Your task to perform on an android device: Search for pizza restaurants on Maps Image 0: 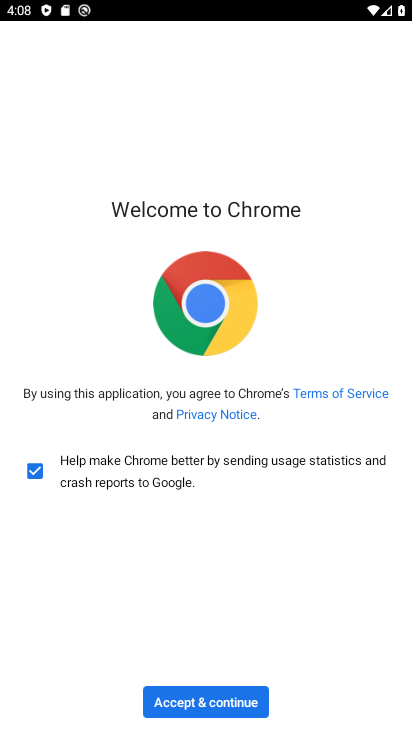
Step 0: press home button
Your task to perform on an android device: Search for pizza restaurants on Maps Image 1: 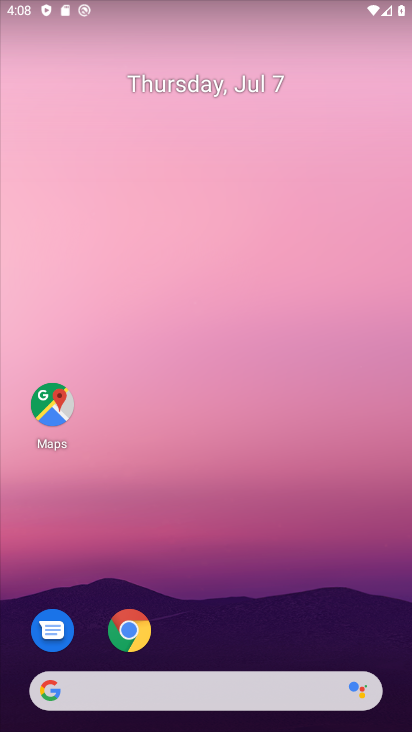
Step 1: click (45, 409)
Your task to perform on an android device: Search for pizza restaurants on Maps Image 2: 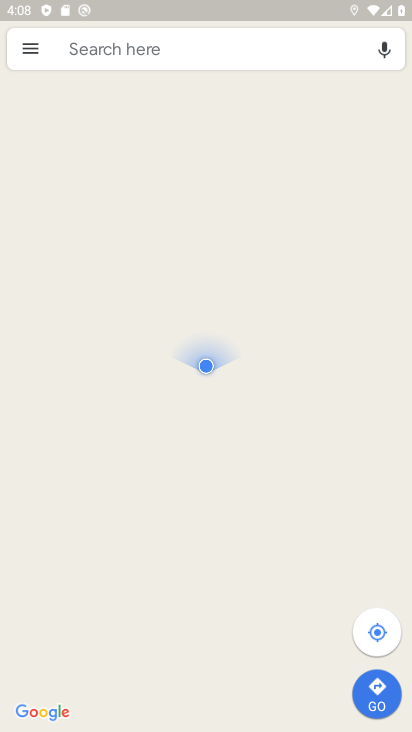
Step 2: click (296, 34)
Your task to perform on an android device: Search for pizza restaurants on Maps Image 3: 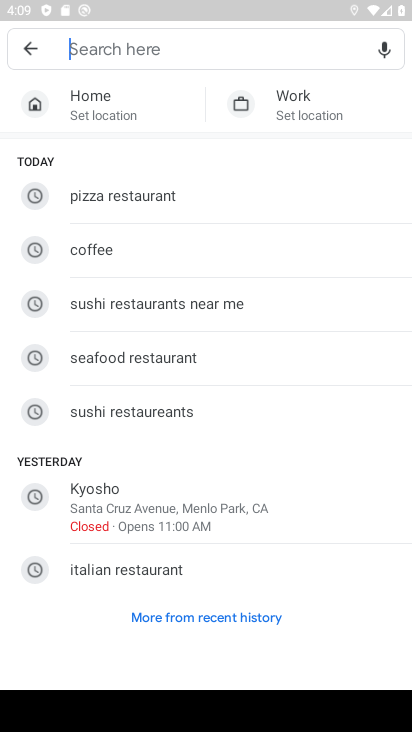
Step 3: click (170, 207)
Your task to perform on an android device: Search for pizza restaurants on Maps Image 4: 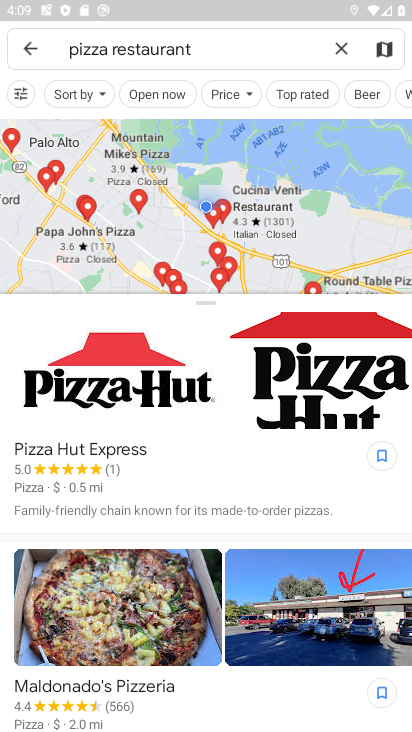
Step 4: task complete